Your task to perform on an android device: open app "Pluto TV - Live TV and Movies" Image 0: 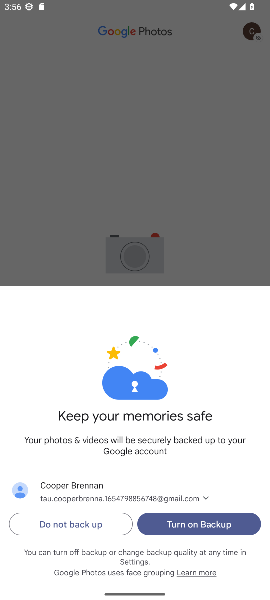
Step 0: press home button
Your task to perform on an android device: open app "Pluto TV - Live TV and Movies" Image 1: 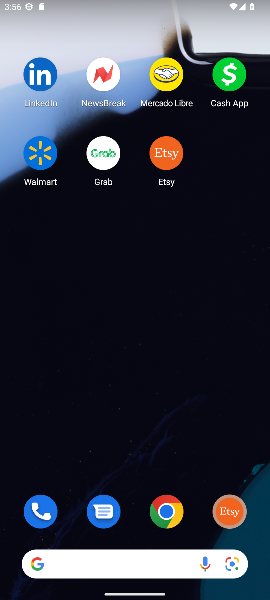
Step 1: drag from (130, 552) to (96, 152)
Your task to perform on an android device: open app "Pluto TV - Live TV and Movies" Image 2: 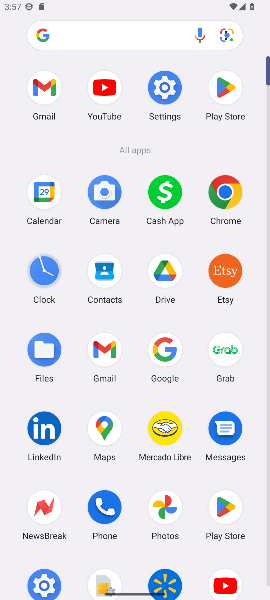
Step 2: click (228, 510)
Your task to perform on an android device: open app "Pluto TV - Live TV and Movies" Image 3: 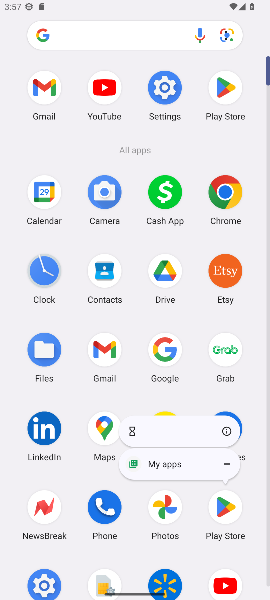
Step 3: click (228, 510)
Your task to perform on an android device: open app "Pluto TV - Live TV and Movies" Image 4: 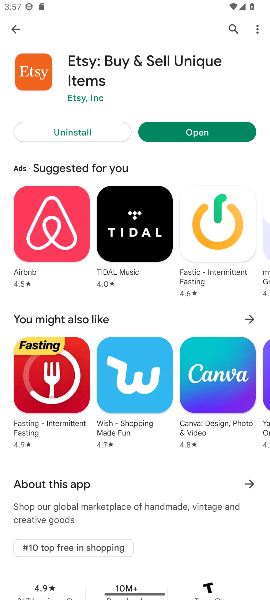
Step 4: click (16, 26)
Your task to perform on an android device: open app "Pluto TV - Live TV and Movies" Image 5: 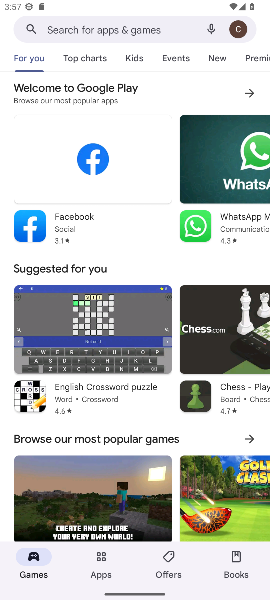
Step 5: type "Pluto TV - Live TV and Movies"
Your task to perform on an android device: open app "Pluto TV - Live TV and Movies" Image 6: 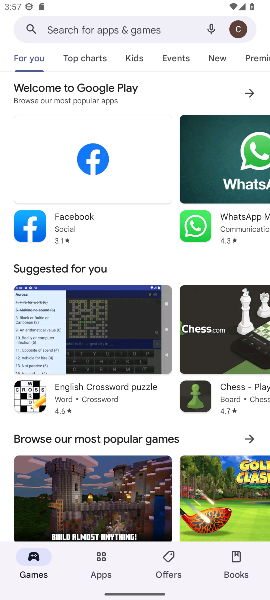
Step 6: click (76, 26)
Your task to perform on an android device: open app "Pluto TV - Live TV and Movies" Image 7: 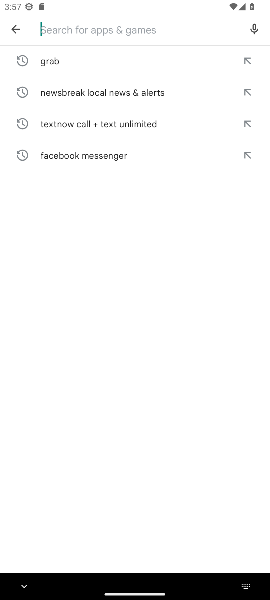
Step 7: type "Pluto TV - Live TV and Movies"
Your task to perform on an android device: open app "Pluto TV - Live TV and Movies" Image 8: 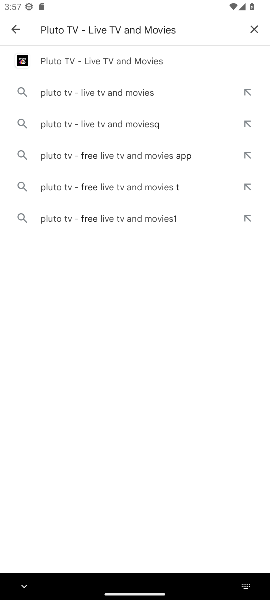
Step 8: click (99, 62)
Your task to perform on an android device: open app "Pluto TV - Live TV and Movies" Image 9: 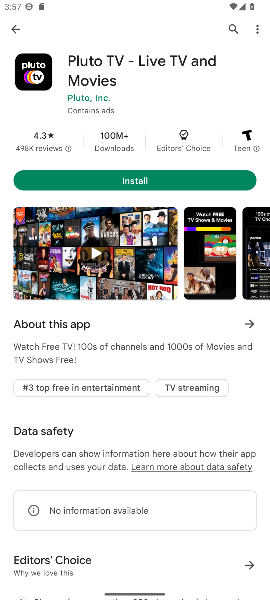
Step 9: click (133, 177)
Your task to perform on an android device: open app "Pluto TV - Live TV and Movies" Image 10: 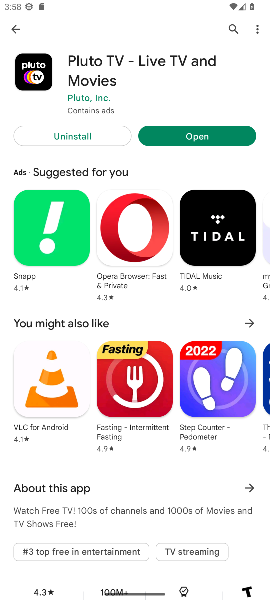
Step 10: click (170, 136)
Your task to perform on an android device: open app "Pluto TV - Live TV and Movies" Image 11: 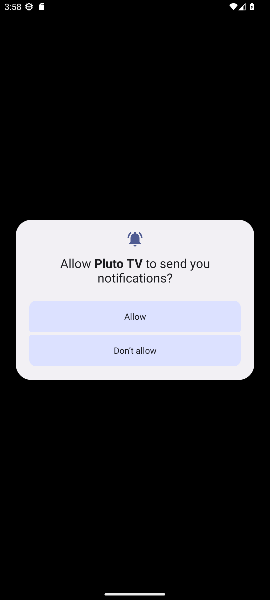
Step 11: task complete